Your task to perform on an android device: turn off improve location accuracy Image 0: 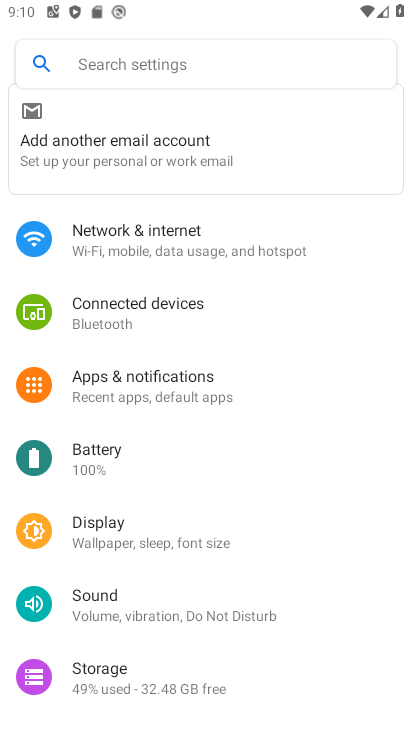
Step 0: drag from (188, 480) to (229, 4)
Your task to perform on an android device: turn off improve location accuracy Image 1: 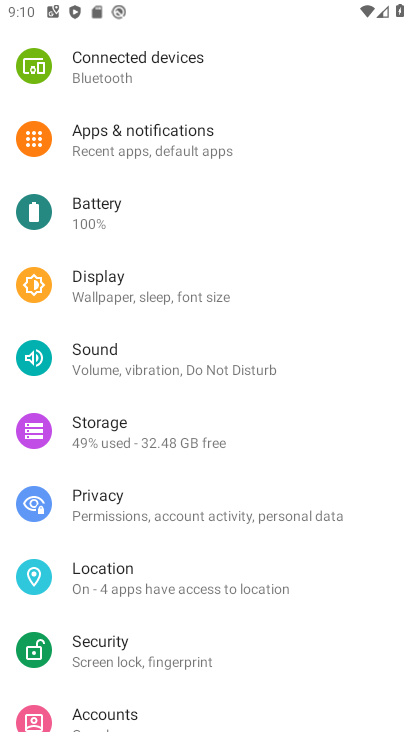
Step 1: click (141, 563)
Your task to perform on an android device: turn off improve location accuracy Image 2: 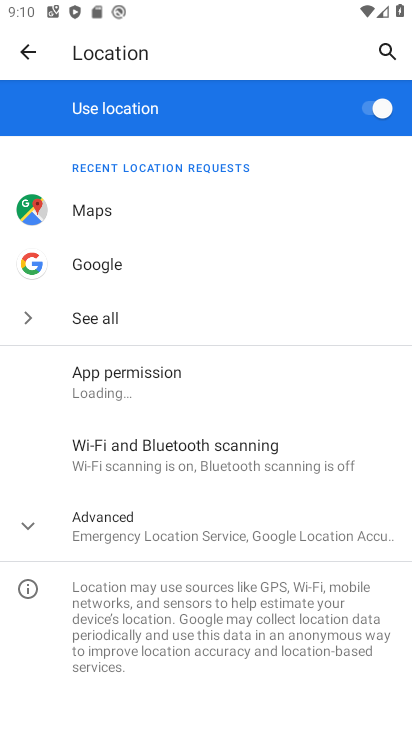
Step 2: drag from (221, 488) to (254, 158)
Your task to perform on an android device: turn off improve location accuracy Image 3: 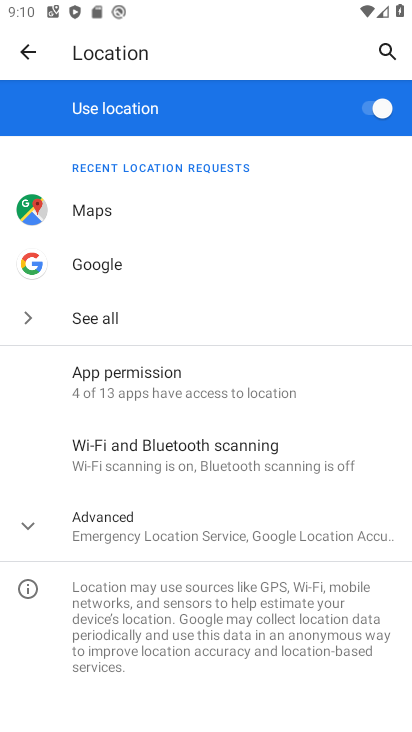
Step 3: click (201, 523)
Your task to perform on an android device: turn off improve location accuracy Image 4: 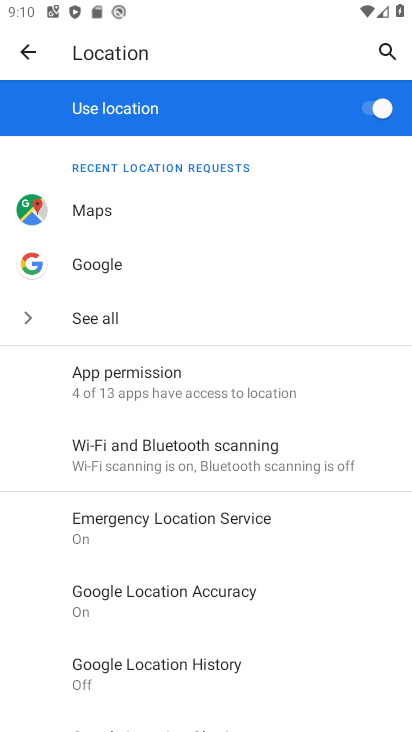
Step 4: click (231, 595)
Your task to perform on an android device: turn off improve location accuracy Image 5: 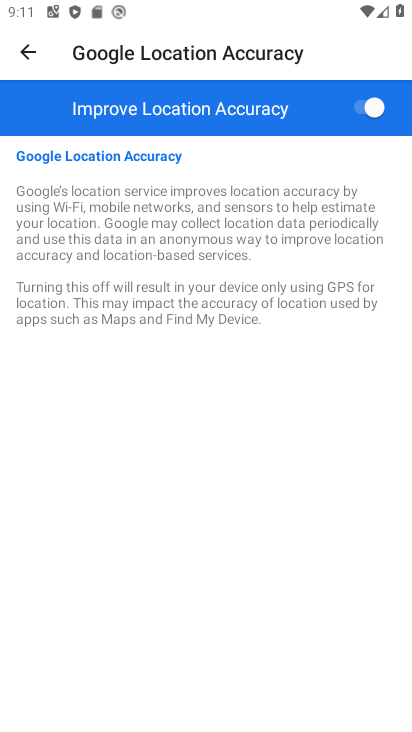
Step 5: click (384, 99)
Your task to perform on an android device: turn off improve location accuracy Image 6: 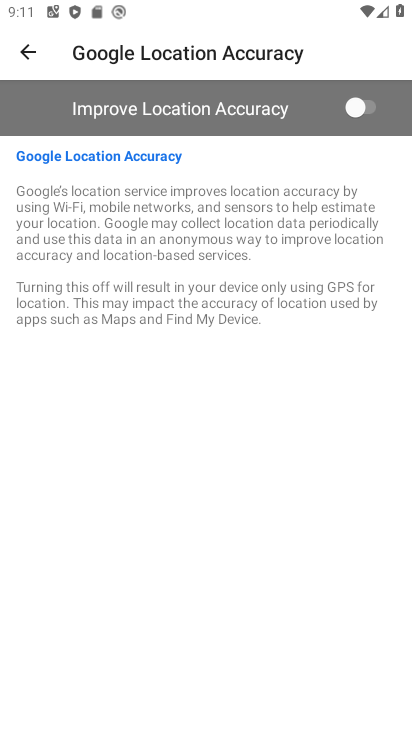
Step 6: task complete